Your task to perform on an android device: Go to sound settings Image 0: 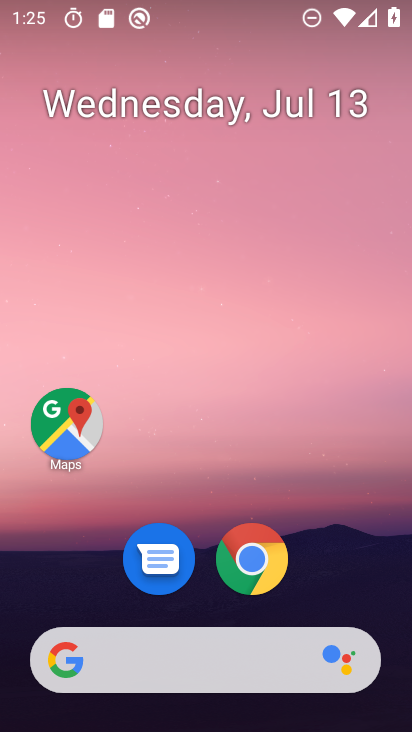
Step 0: drag from (216, 577) to (200, 77)
Your task to perform on an android device: Go to sound settings Image 1: 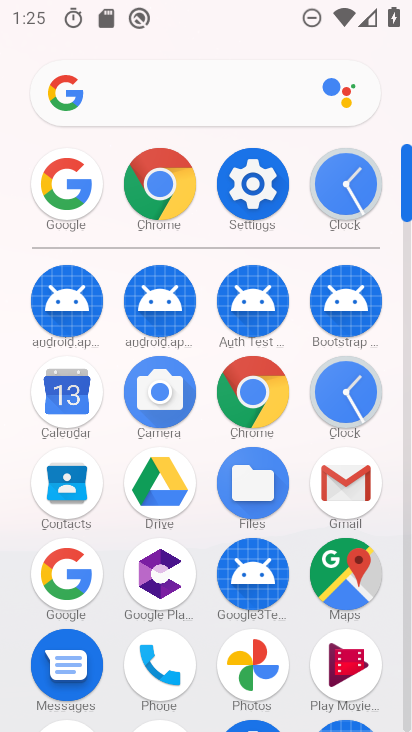
Step 1: drag from (205, 522) to (199, 314)
Your task to perform on an android device: Go to sound settings Image 2: 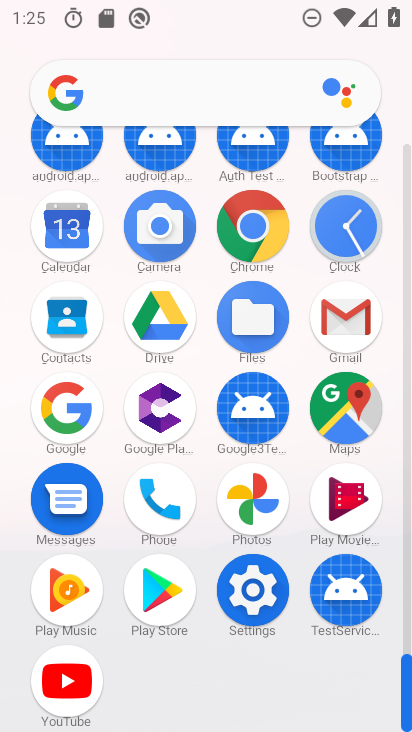
Step 2: click (274, 604)
Your task to perform on an android device: Go to sound settings Image 3: 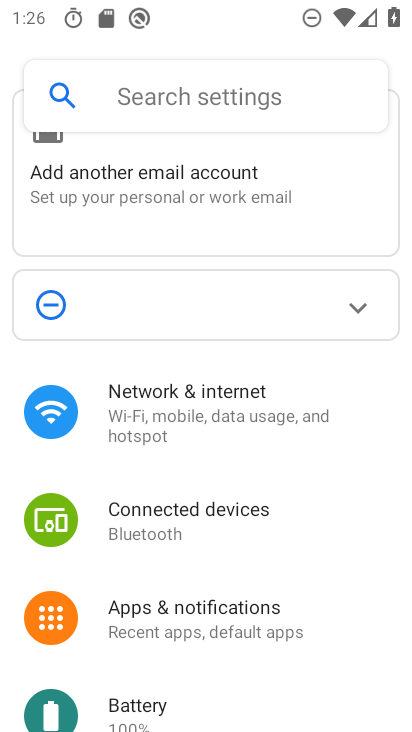
Step 3: drag from (210, 643) to (194, 389)
Your task to perform on an android device: Go to sound settings Image 4: 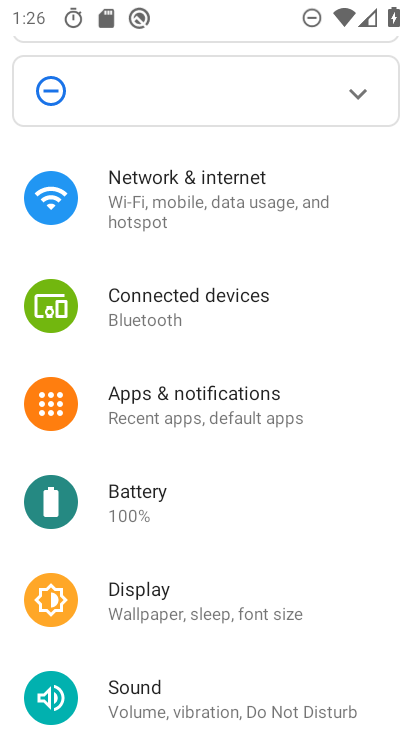
Step 4: click (201, 691)
Your task to perform on an android device: Go to sound settings Image 5: 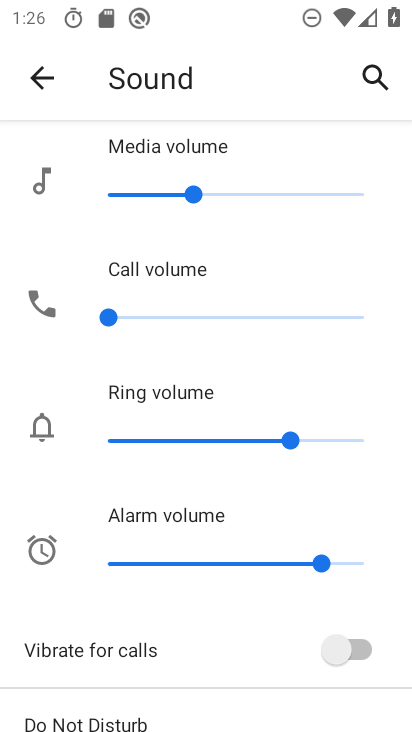
Step 5: drag from (155, 625) to (168, 445)
Your task to perform on an android device: Go to sound settings Image 6: 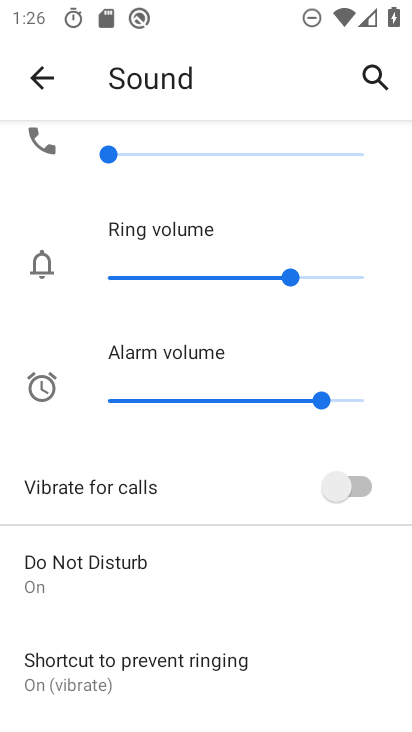
Step 6: click (153, 440)
Your task to perform on an android device: Go to sound settings Image 7: 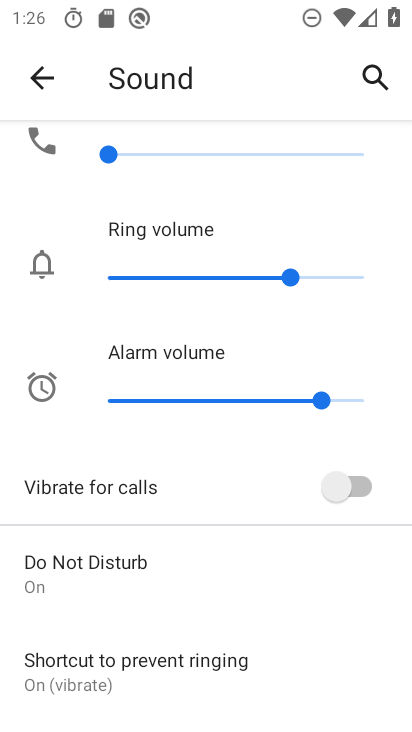
Step 7: task complete